Your task to perform on an android device: What's the weather today? Image 0: 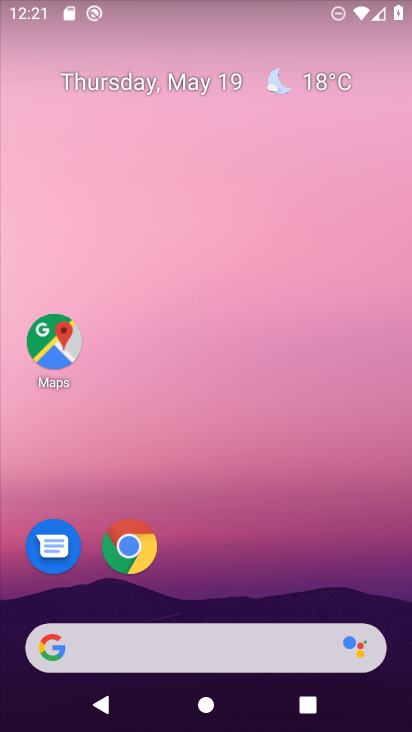
Step 0: click (277, 75)
Your task to perform on an android device: What's the weather today? Image 1: 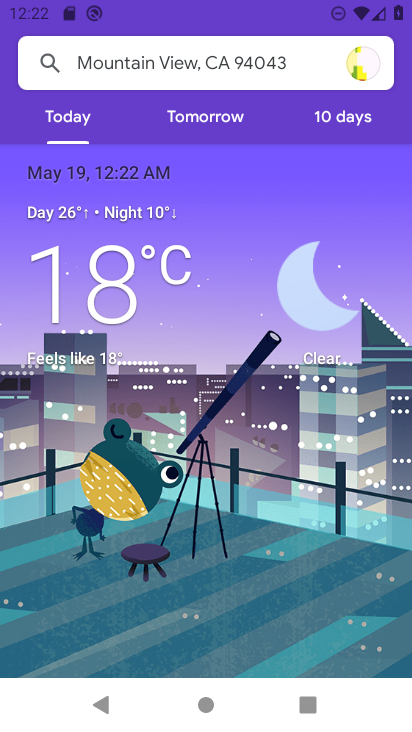
Step 1: task complete